Your task to perform on an android device: Add duracell triple a to the cart on newegg.com Image 0: 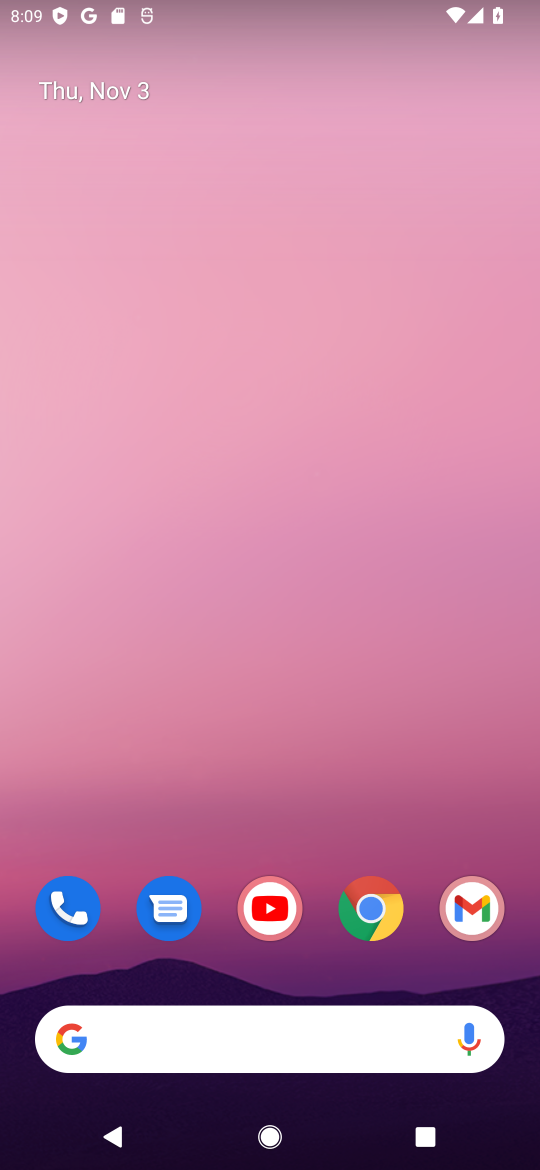
Step 0: click (392, 916)
Your task to perform on an android device: Add duracell triple a to the cart on newegg.com Image 1: 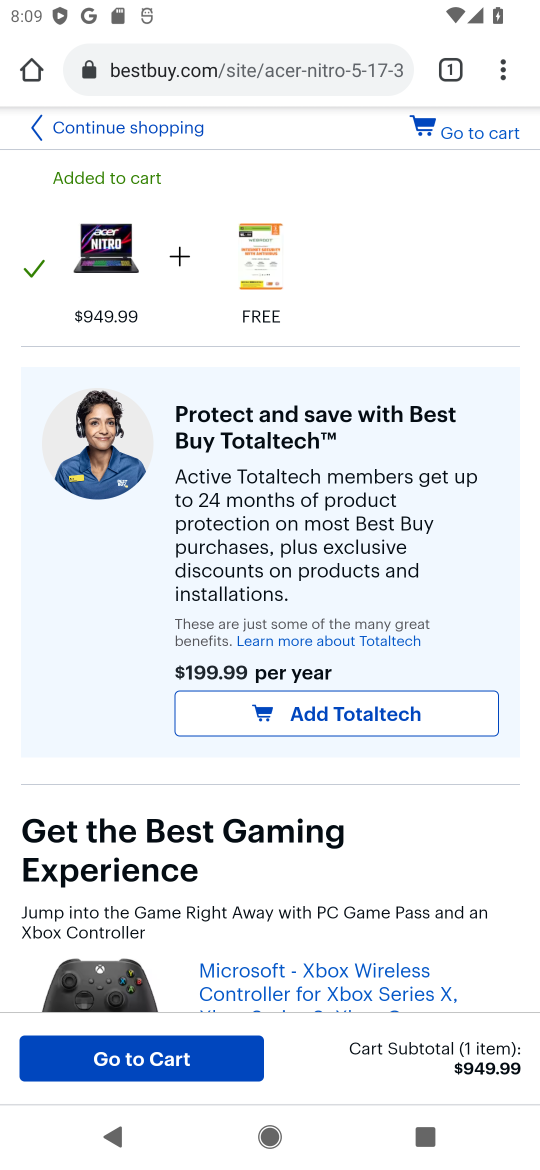
Step 1: click (31, 67)
Your task to perform on an android device: Add duracell triple a to the cart on newegg.com Image 2: 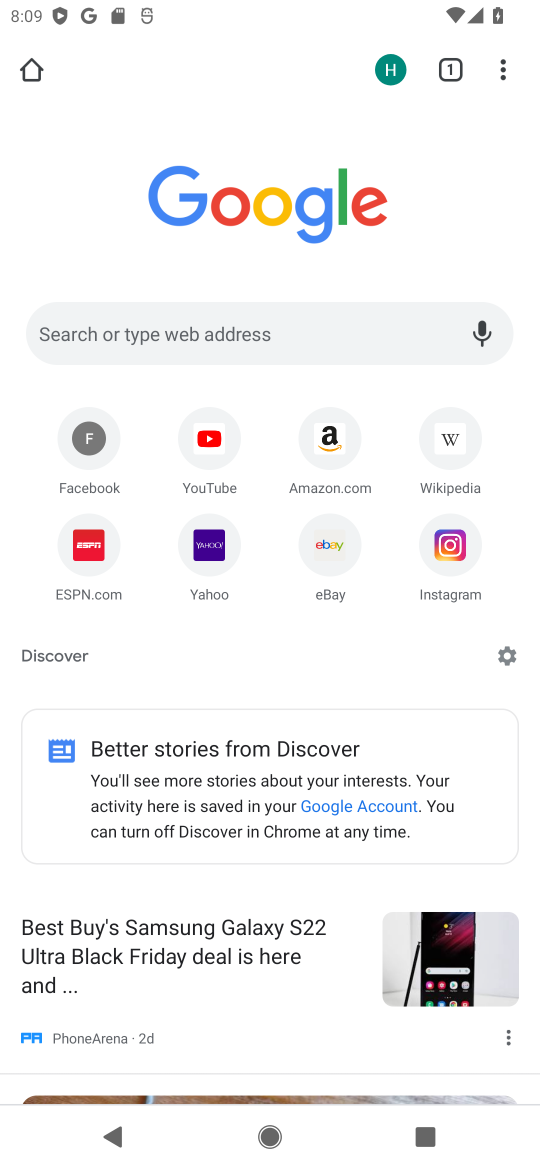
Step 2: click (235, 323)
Your task to perform on an android device: Add duracell triple a to the cart on newegg.com Image 3: 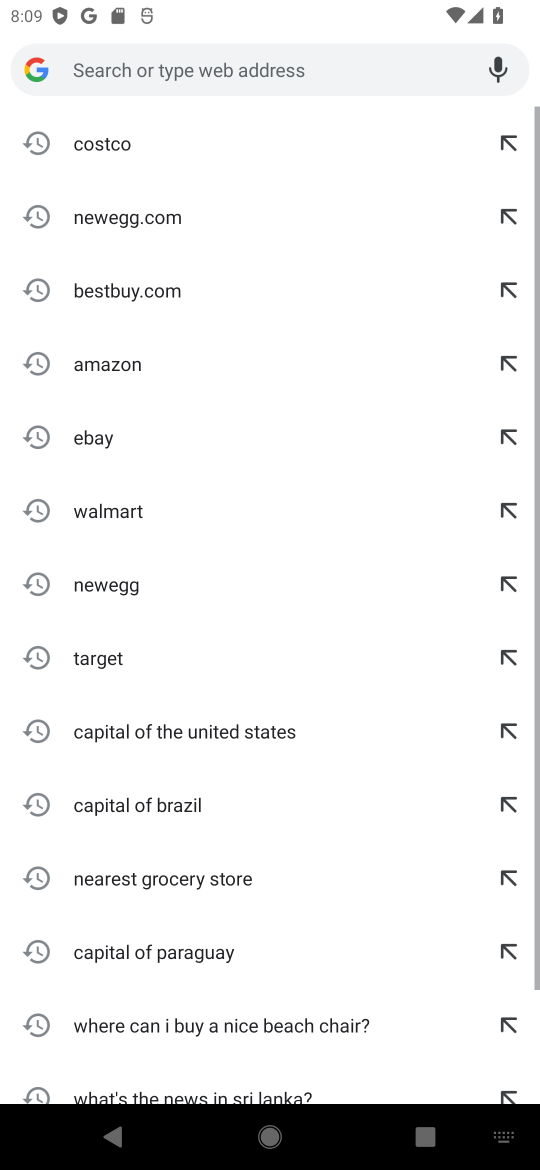
Step 3: click (132, 217)
Your task to perform on an android device: Add duracell triple a to the cart on newegg.com Image 4: 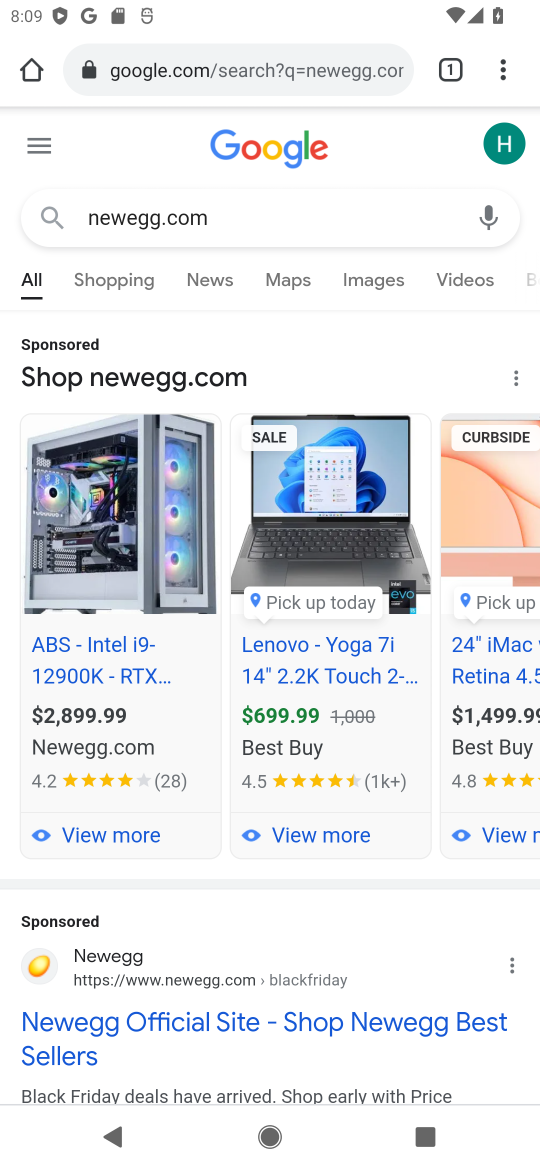
Step 4: click (215, 979)
Your task to perform on an android device: Add duracell triple a to the cart on newegg.com Image 5: 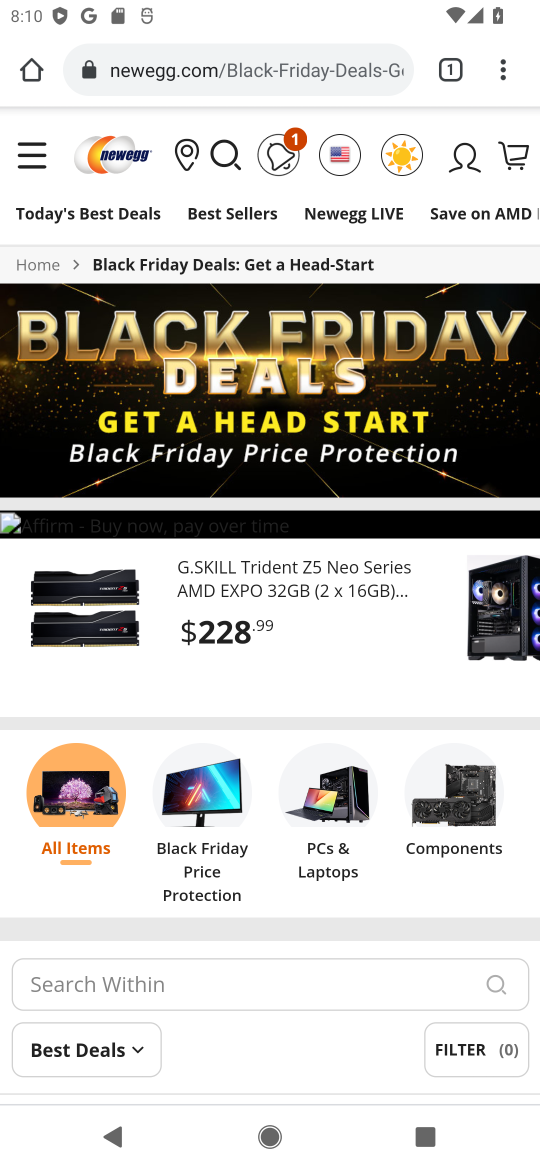
Step 5: click (223, 150)
Your task to perform on an android device: Add duracell triple a to the cart on newegg.com Image 6: 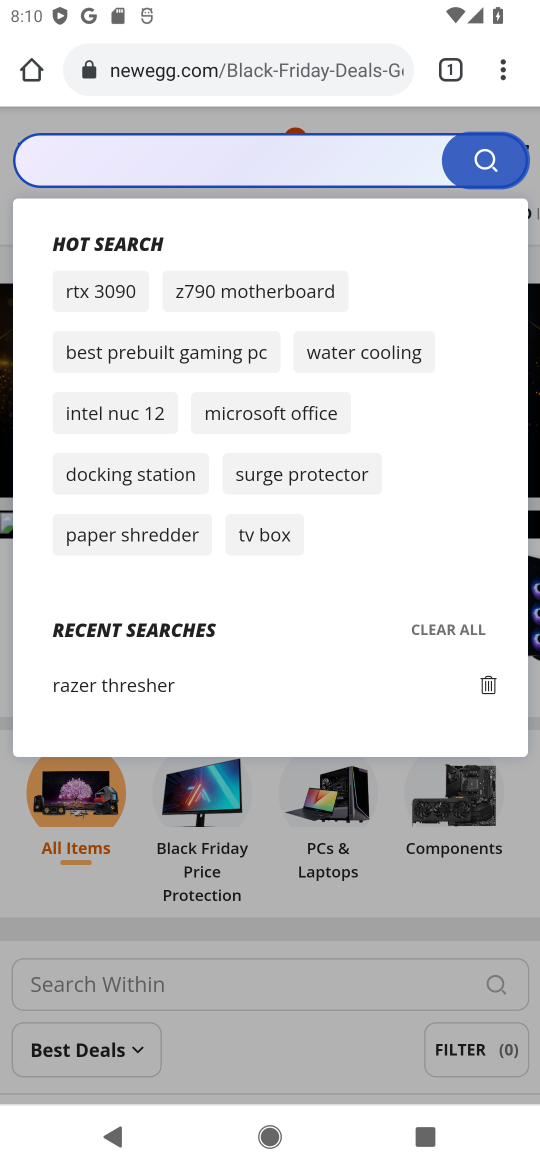
Step 6: type "duracell triple a"
Your task to perform on an android device: Add duracell triple a to the cart on newegg.com Image 7: 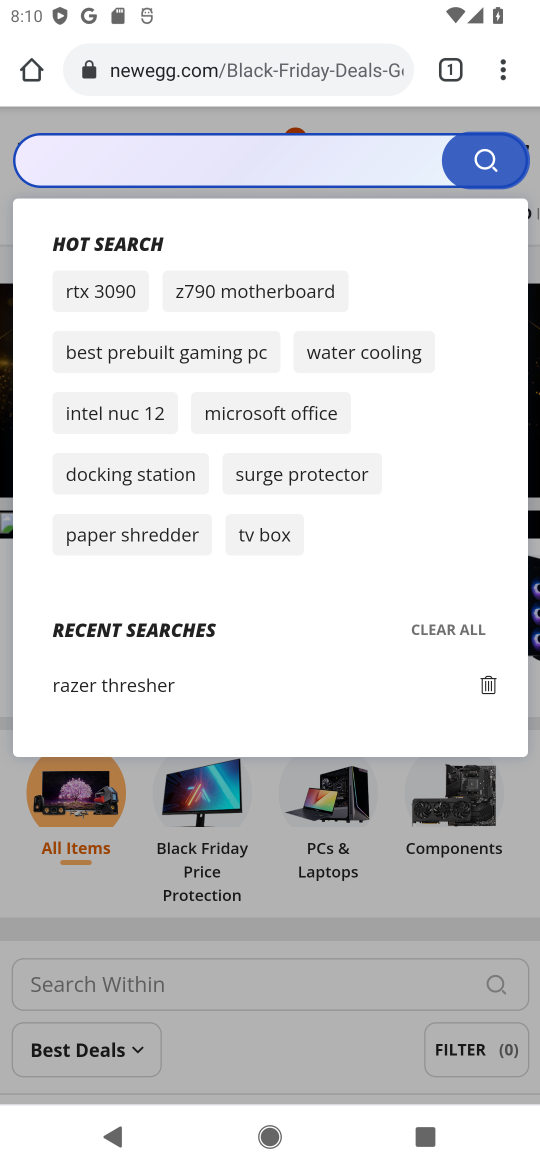
Step 7: press enter
Your task to perform on an android device: Add duracell triple a to the cart on newegg.com Image 8: 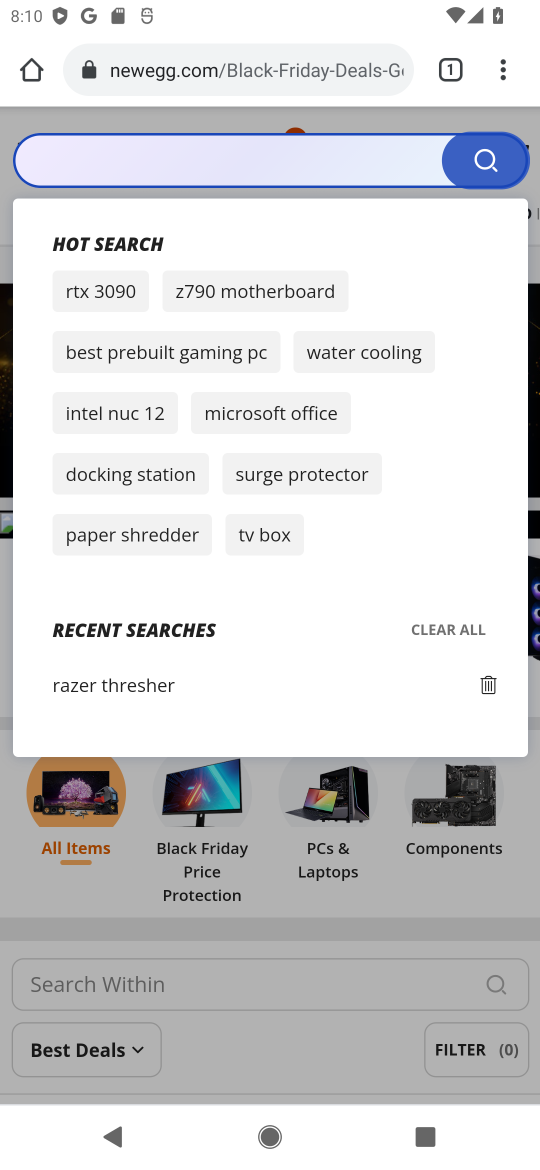
Step 8: click (503, 162)
Your task to perform on an android device: Add duracell triple a to the cart on newegg.com Image 9: 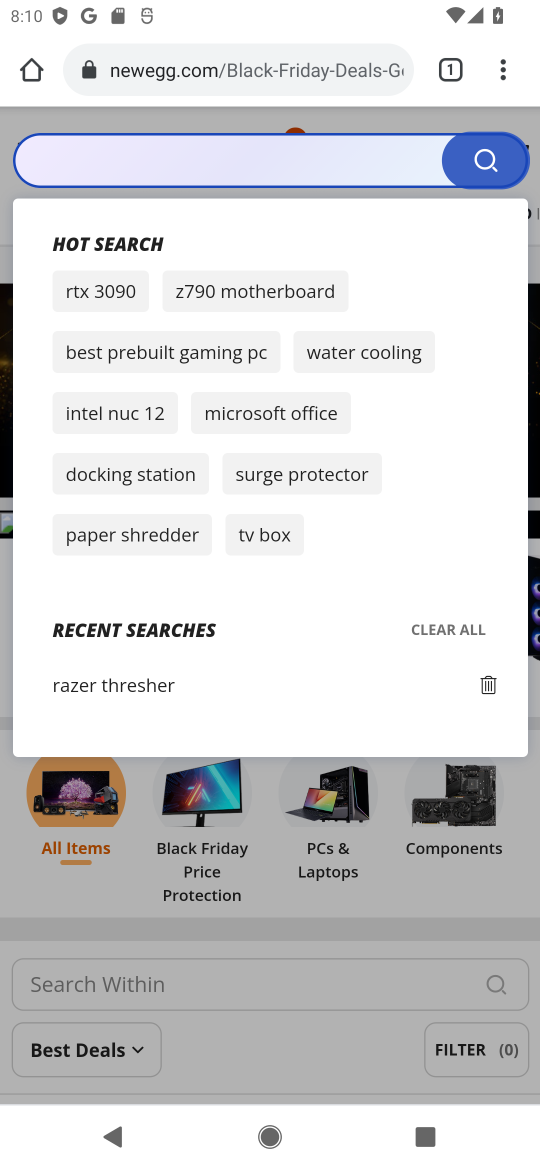
Step 9: click (323, 167)
Your task to perform on an android device: Add duracell triple a to the cart on newegg.com Image 10: 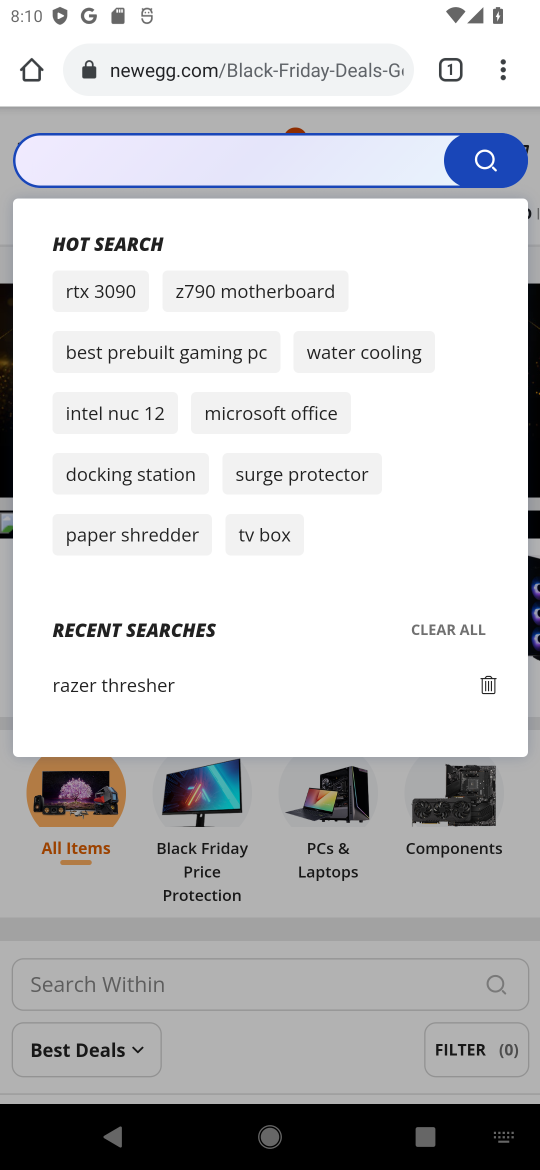
Step 10: click (493, 117)
Your task to perform on an android device: Add duracell triple a to the cart on newegg.com Image 11: 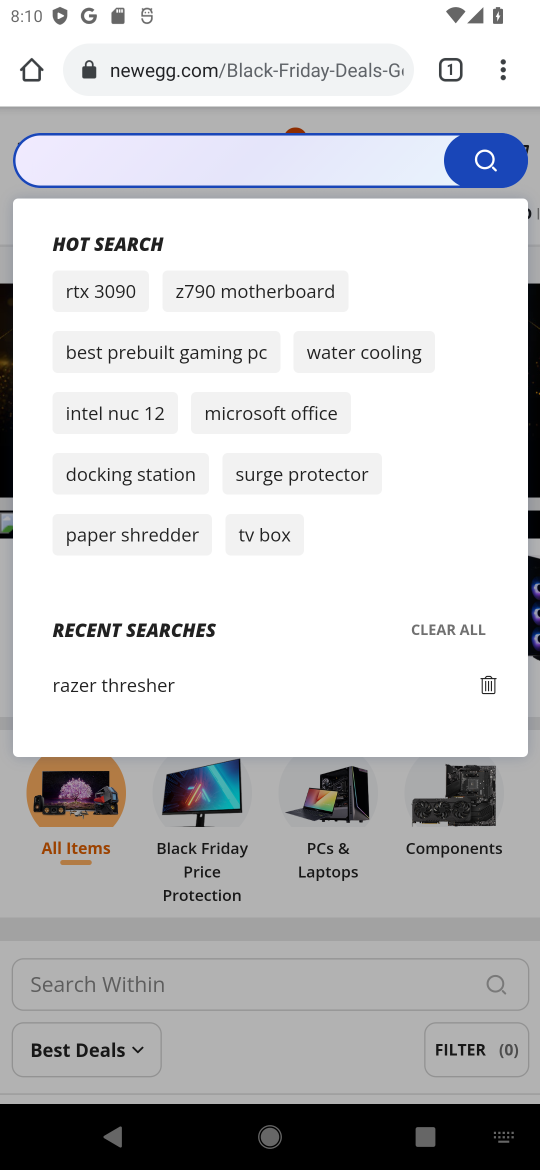
Step 11: click (535, 181)
Your task to perform on an android device: Add duracell triple a to the cart on newegg.com Image 12: 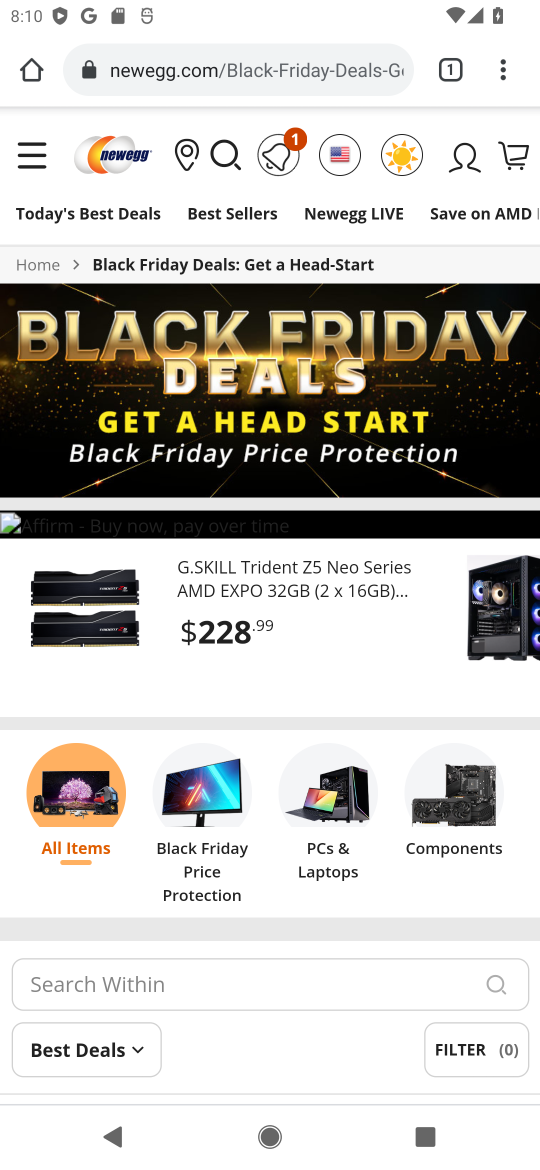
Step 12: click (219, 149)
Your task to perform on an android device: Add duracell triple a to the cart on newegg.com Image 13: 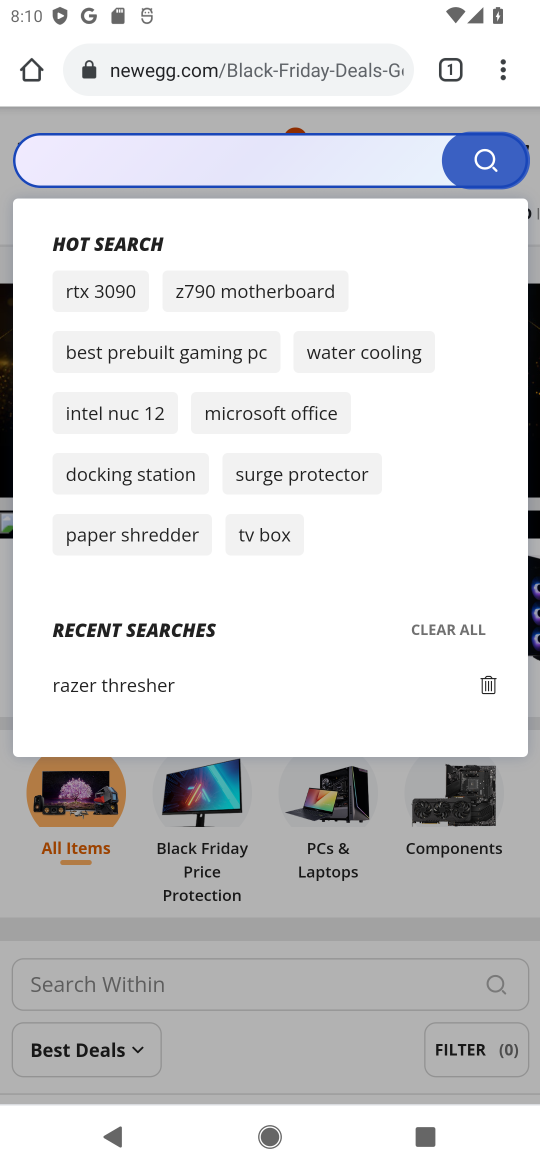
Step 13: task complete